Your task to perform on an android device: Search for seafood restaurants on Google Maps Image 0: 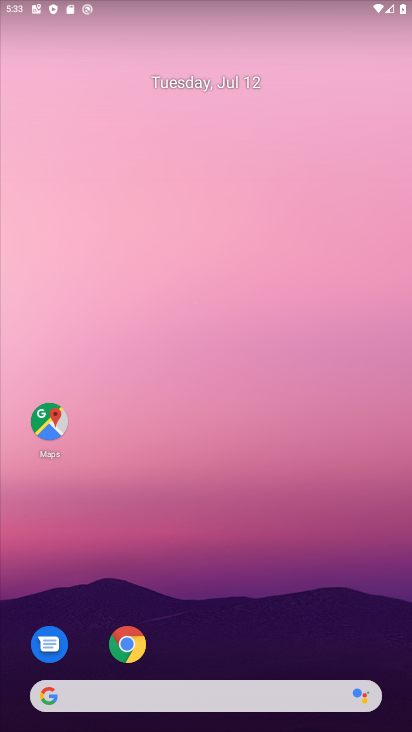
Step 0: press home button
Your task to perform on an android device: Search for seafood restaurants on Google Maps Image 1: 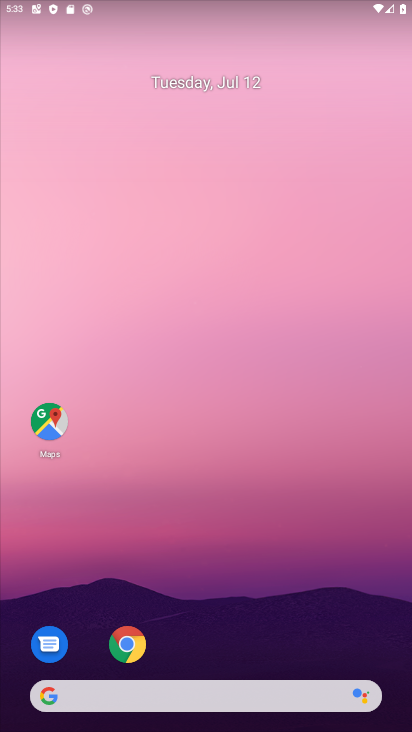
Step 1: click (52, 433)
Your task to perform on an android device: Search for seafood restaurants on Google Maps Image 2: 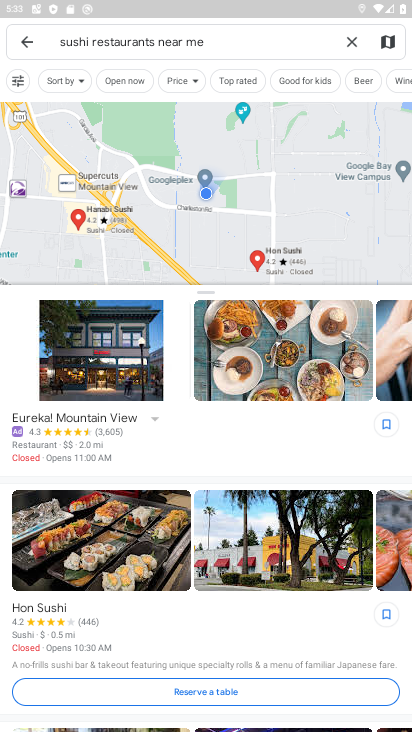
Step 2: task complete